Your task to perform on an android device: uninstall "Instagram" Image 0: 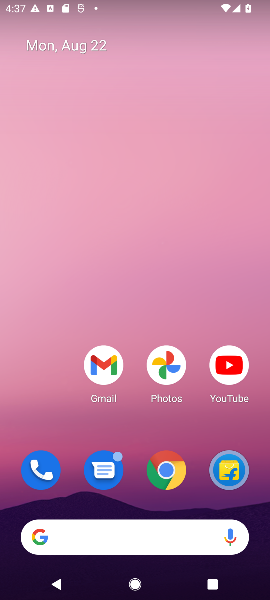
Step 0: drag from (180, 496) to (170, 131)
Your task to perform on an android device: uninstall "Instagram" Image 1: 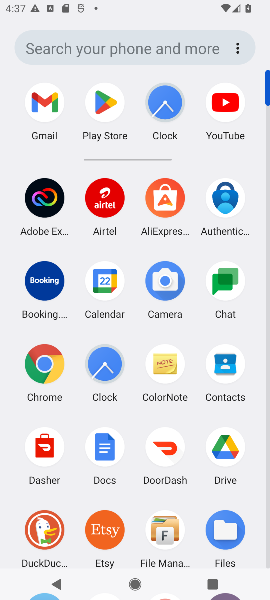
Step 1: click (104, 98)
Your task to perform on an android device: uninstall "Instagram" Image 2: 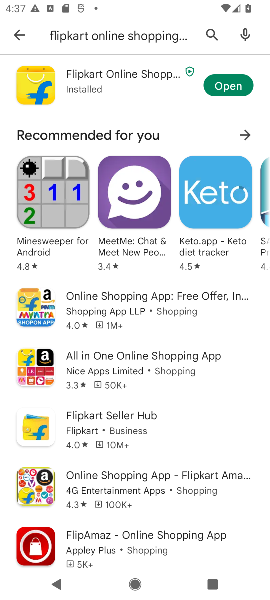
Step 2: click (8, 32)
Your task to perform on an android device: uninstall "Instagram" Image 3: 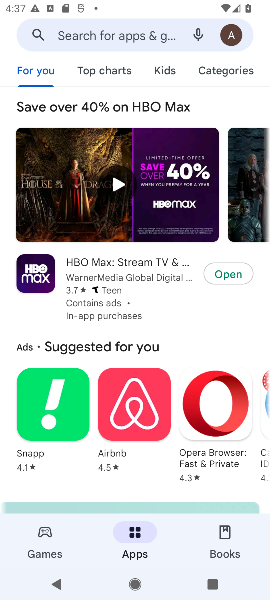
Step 3: click (103, 29)
Your task to perform on an android device: uninstall "Instagram" Image 4: 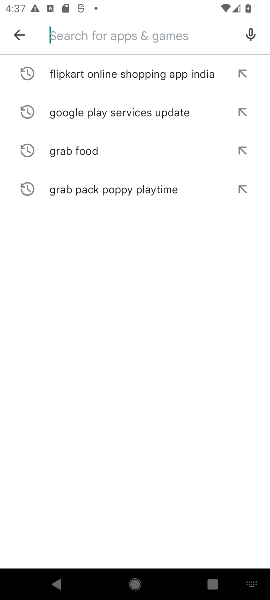
Step 4: type "instagram "
Your task to perform on an android device: uninstall "Instagram" Image 5: 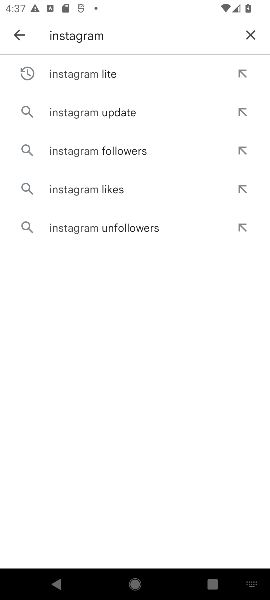
Step 5: click (101, 75)
Your task to perform on an android device: uninstall "Instagram" Image 6: 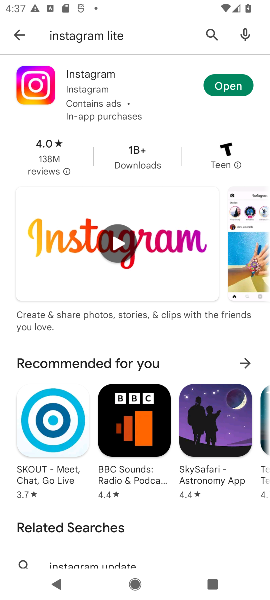
Step 6: click (152, 94)
Your task to perform on an android device: uninstall "Instagram" Image 7: 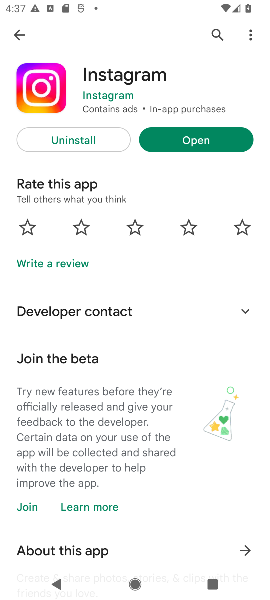
Step 7: click (69, 139)
Your task to perform on an android device: uninstall "Instagram" Image 8: 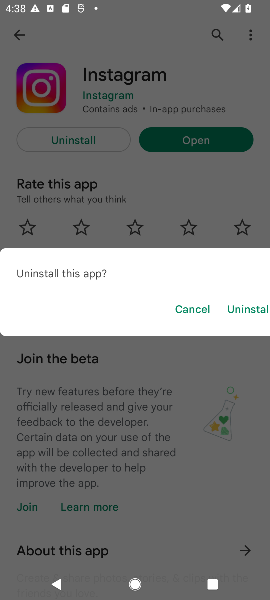
Step 8: click (244, 311)
Your task to perform on an android device: uninstall "Instagram" Image 9: 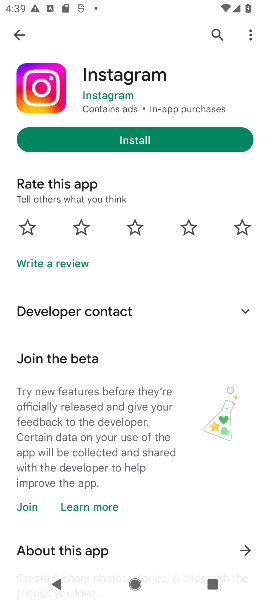
Step 9: task complete